Your task to perform on an android device: Show me popular games on the Play Store Image 0: 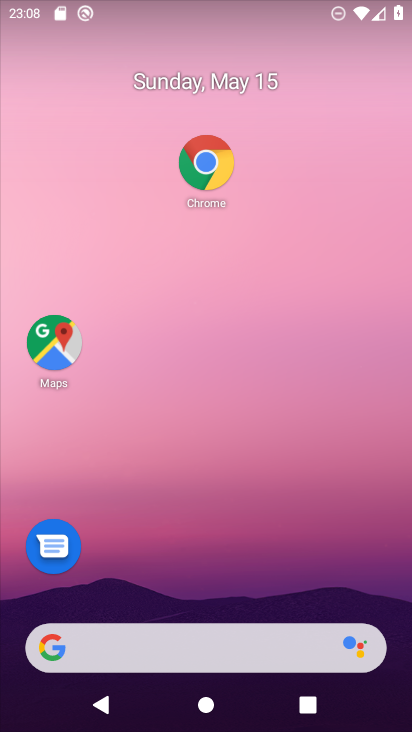
Step 0: drag from (226, 594) to (299, 245)
Your task to perform on an android device: Show me popular games on the Play Store Image 1: 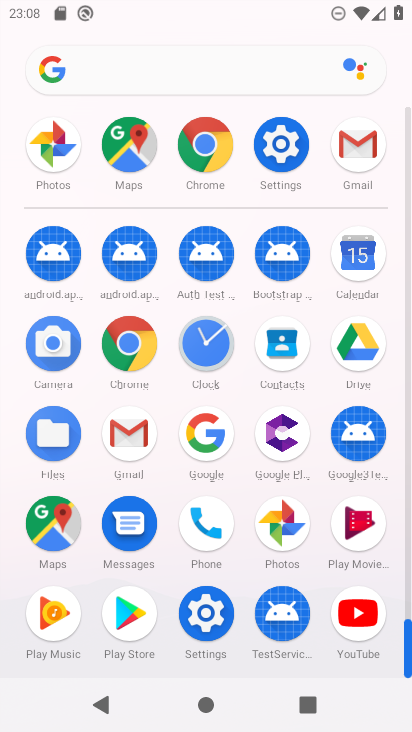
Step 1: drag from (155, 556) to (182, 242)
Your task to perform on an android device: Show me popular games on the Play Store Image 2: 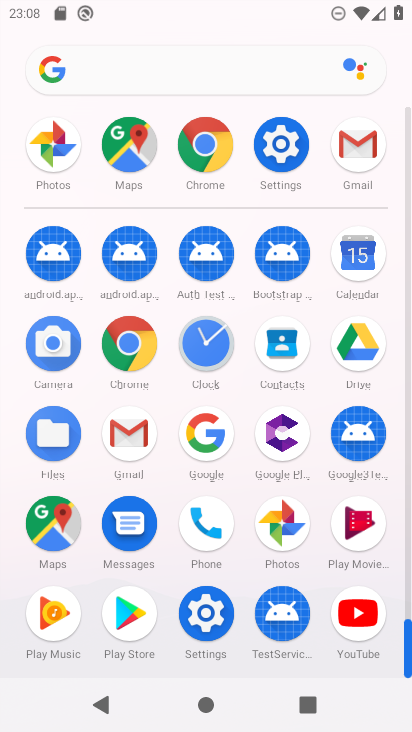
Step 2: click (124, 619)
Your task to perform on an android device: Show me popular games on the Play Store Image 3: 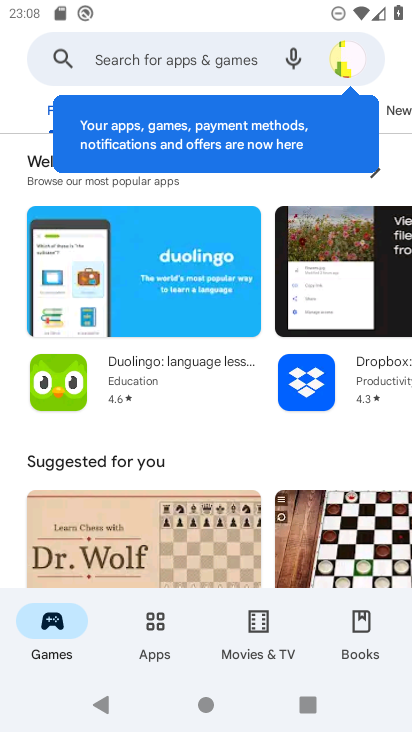
Step 3: click (139, 615)
Your task to perform on an android device: Show me popular games on the Play Store Image 4: 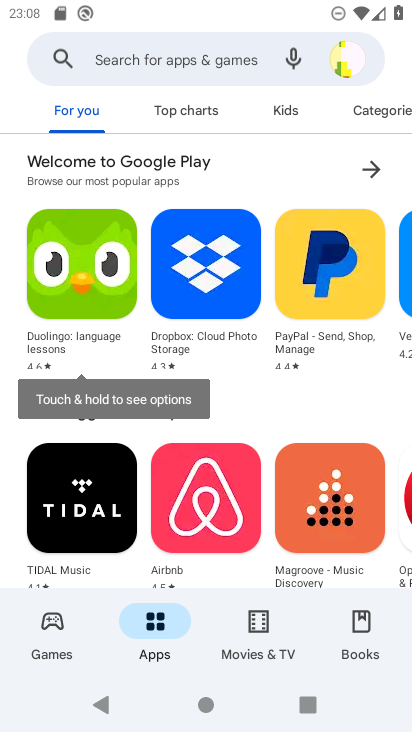
Step 4: task complete